Your task to perform on an android device: Open wifi settings Image 0: 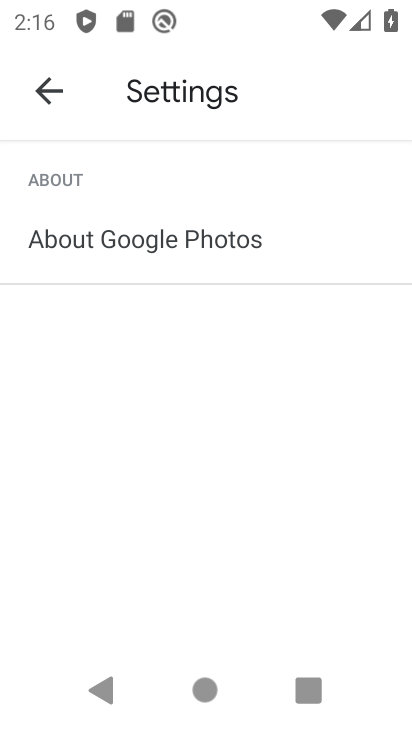
Step 0: press home button
Your task to perform on an android device: Open wifi settings Image 1: 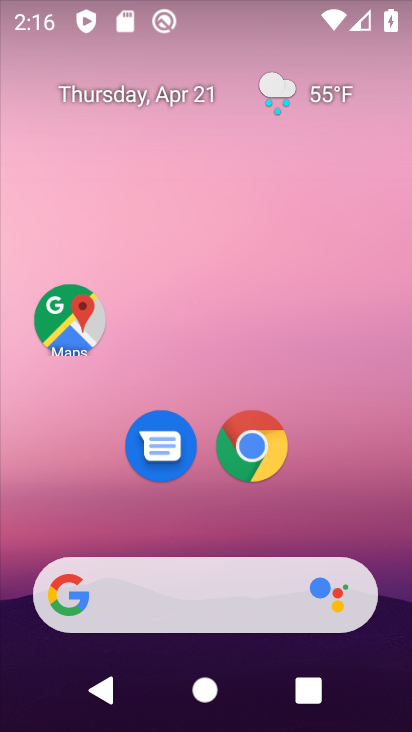
Step 1: drag from (209, 703) to (213, 76)
Your task to perform on an android device: Open wifi settings Image 2: 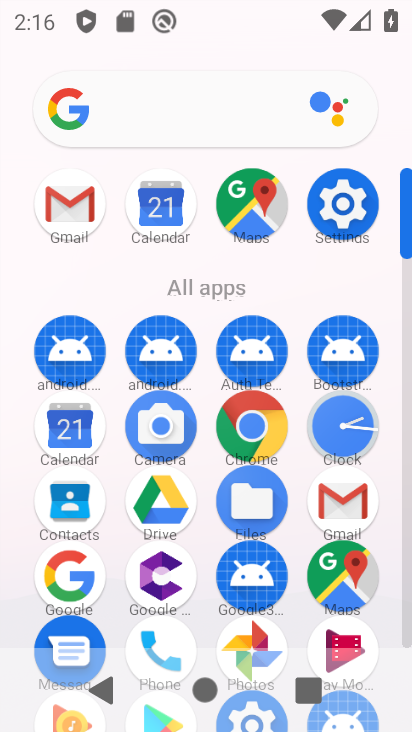
Step 2: click (332, 200)
Your task to perform on an android device: Open wifi settings Image 3: 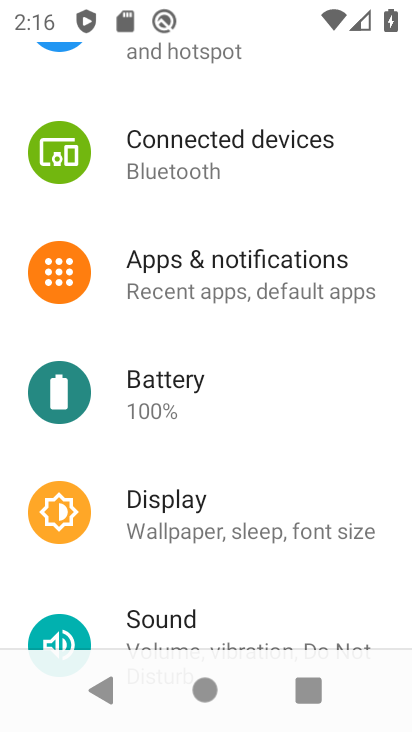
Step 3: drag from (247, 119) to (244, 511)
Your task to perform on an android device: Open wifi settings Image 4: 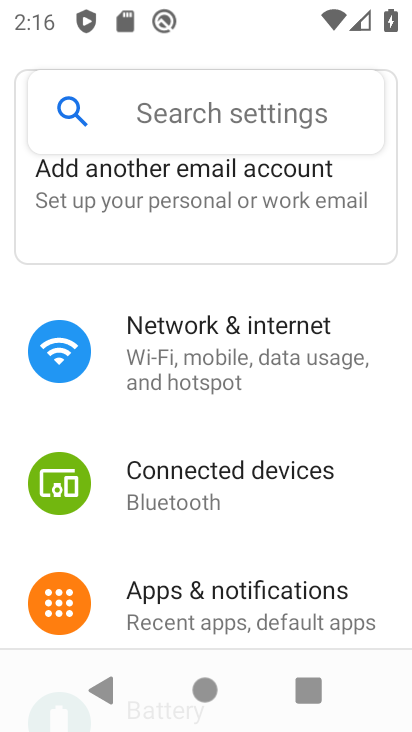
Step 4: click (192, 363)
Your task to perform on an android device: Open wifi settings Image 5: 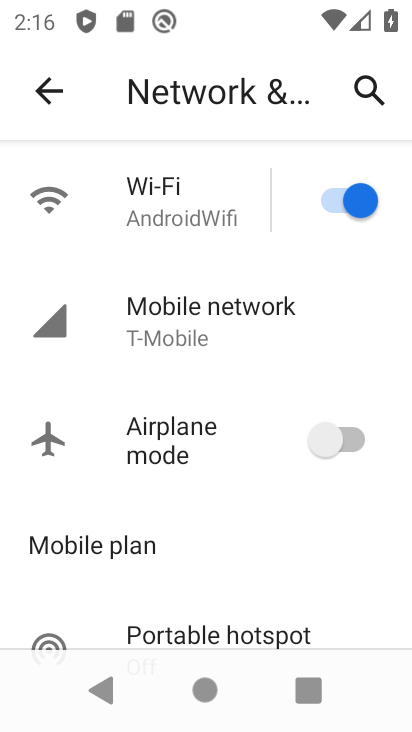
Step 5: click (160, 209)
Your task to perform on an android device: Open wifi settings Image 6: 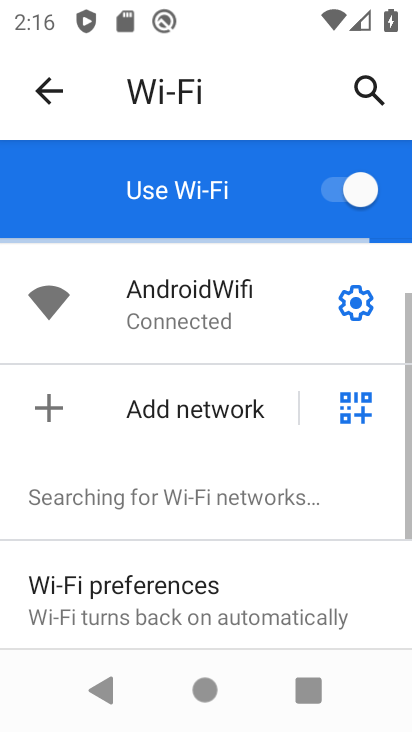
Step 6: click (352, 303)
Your task to perform on an android device: Open wifi settings Image 7: 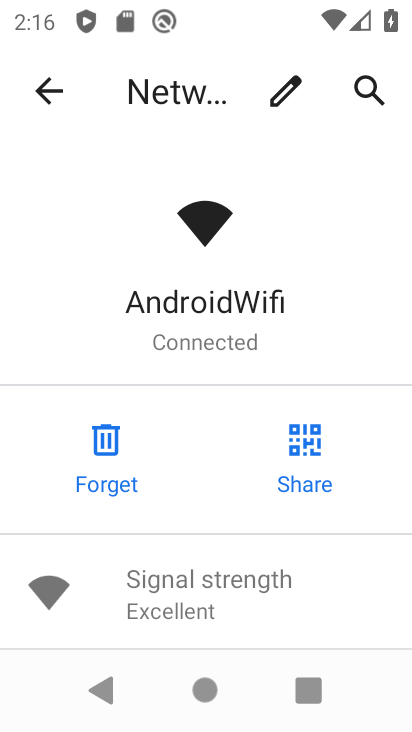
Step 7: task complete